Your task to perform on an android device: turn off sleep mode Image 0: 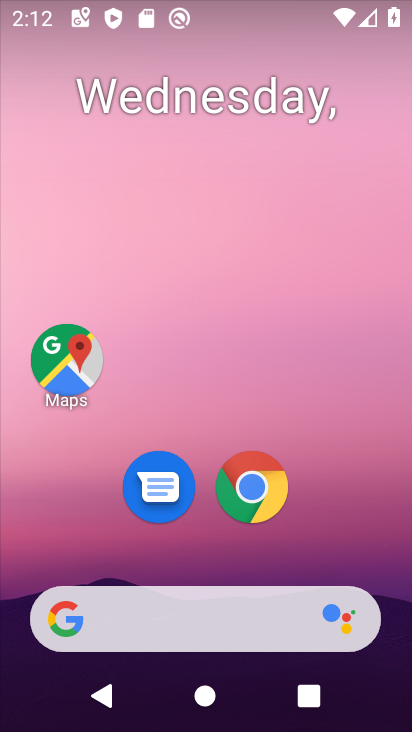
Step 0: drag from (342, 538) to (253, 139)
Your task to perform on an android device: turn off sleep mode Image 1: 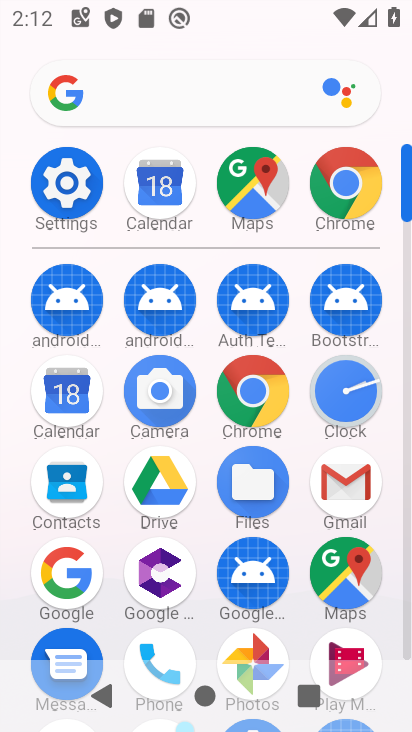
Step 1: click (62, 181)
Your task to perform on an android device: turn off sleep mode Image 2: 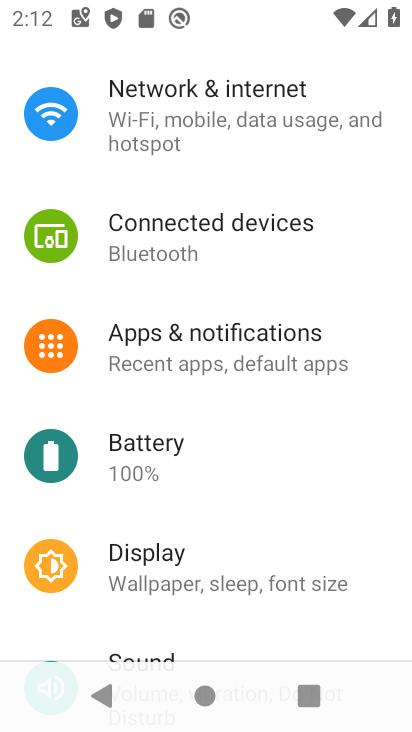
Step 2: click (145, 548)
Your task to perform on an android device: turn off sleep mode Image 3: 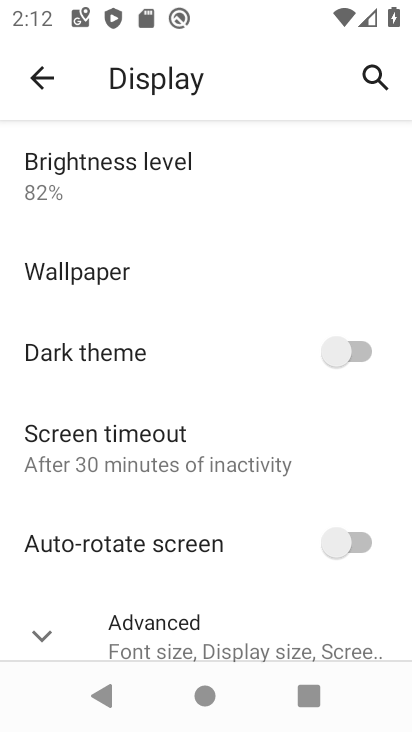
Step 3: task complete